Your task to perform on an android device: clear all cookies in the chrome app Image 0: 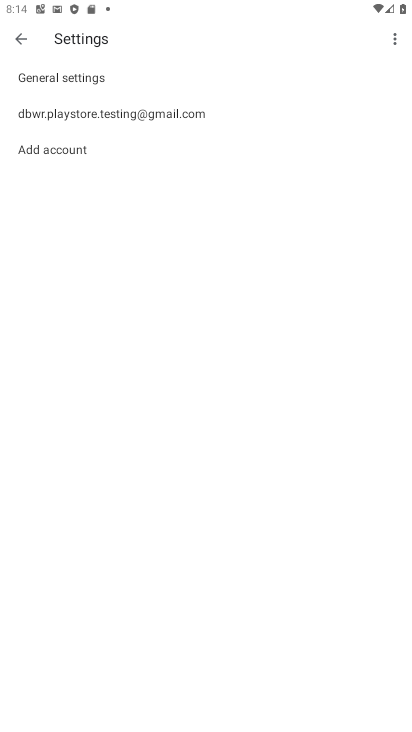
Step 0: press home button
Your task to perform on an android device: clear all cookies in the chrome app Image 1: 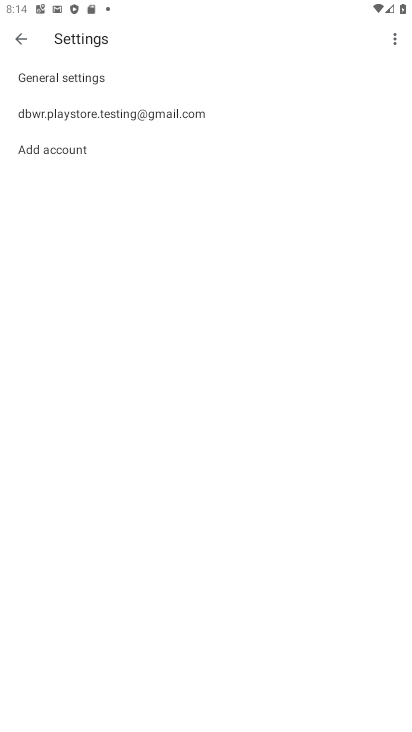
Step 1: press home button
Your task to perform on an android device: clear all cookies in the chrome app Image 2: 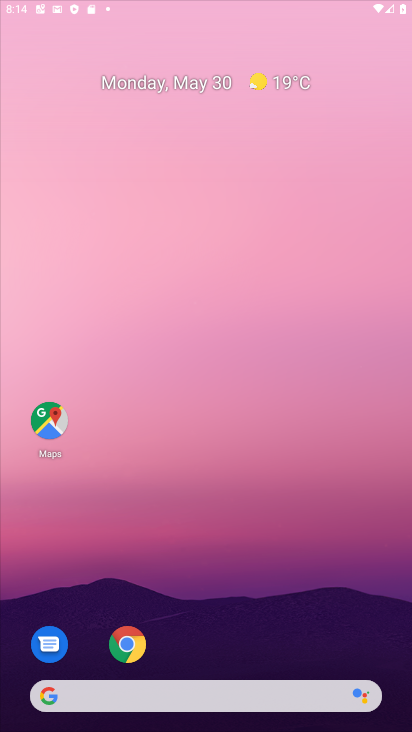
Step 2: press home button
Your task to perform on an android device: clear all cookies in the chrome app Image 3: 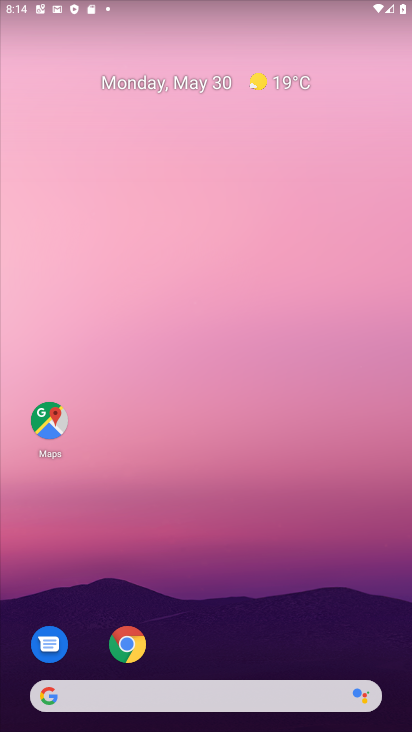
Step 3: drag from (169, 670) to (226, 133)
Your task to perform on an android device: clear all cookies in the chrome app Image 4: 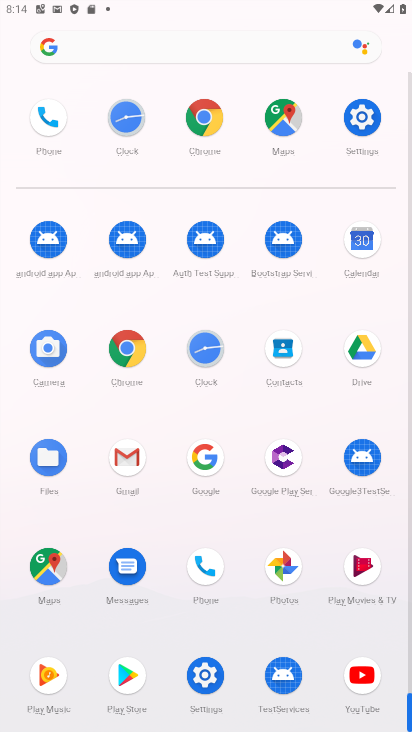
Step 4: click (118, 347)
Your task to perform on an android device: clear all cookies in the chrome app Image 5: 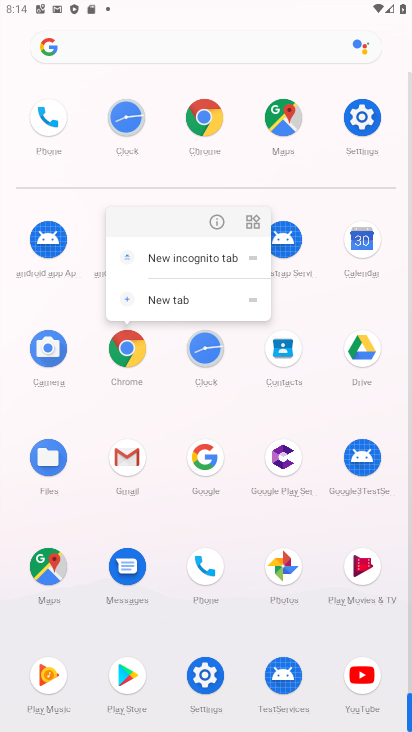
Step 5: click (212, 222)
Your task to perform on an android device: clear all cookies in the chrome app Image 6: 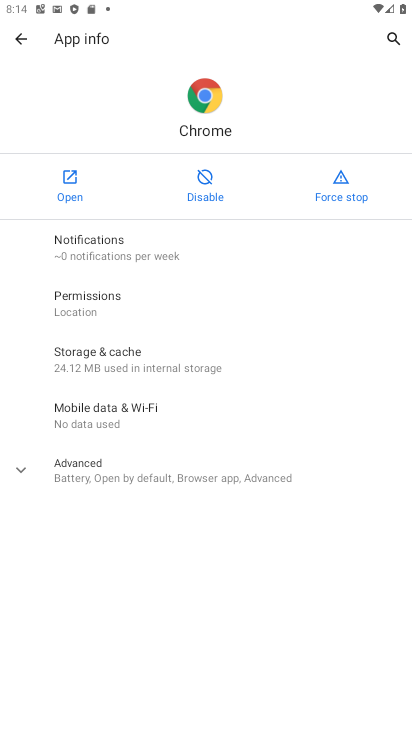
Step 6: click (63, 168)
Your task to perform on an android device: clear all cookies in the chrome app Image 7: 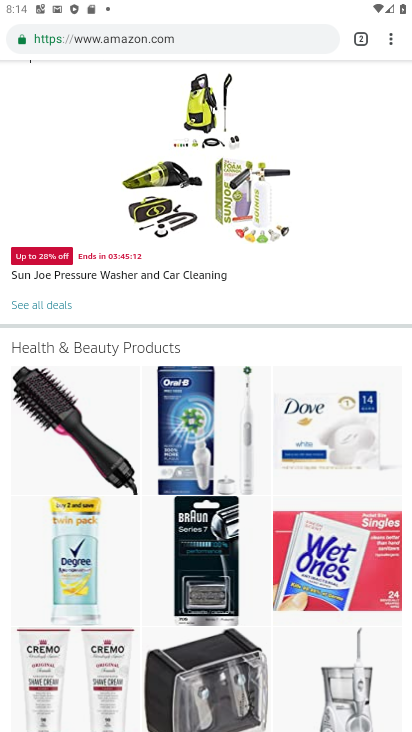
Step 7: drag from (392, 38) to (263, 467)
Your task to perform on an android device: clear all cookies in the chrome app Image 8: 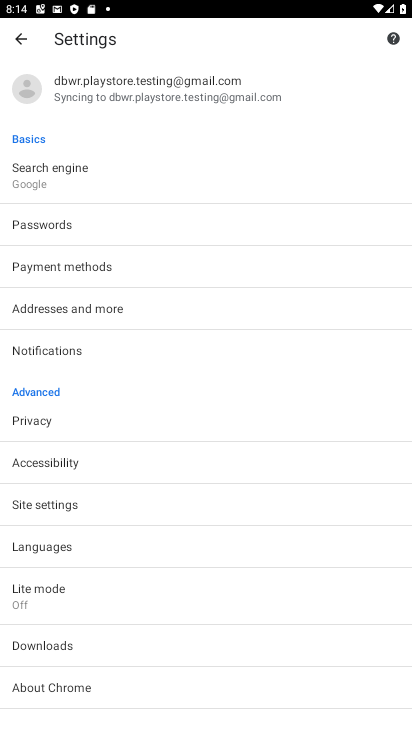
Step 8: click (20, 38)
Your task to perform on an android device: clear all cookies in the chrome app Image 9: 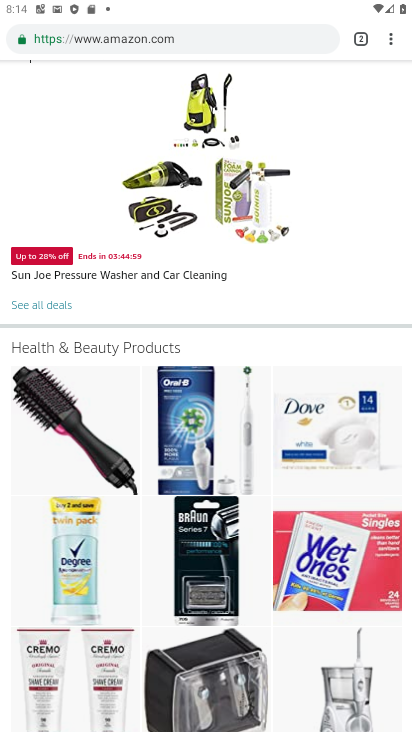
Step 9: drag from (381, 38) to (258, 220)
Your task to perform on an android device: clear all cookies in the chrome app Image 10: 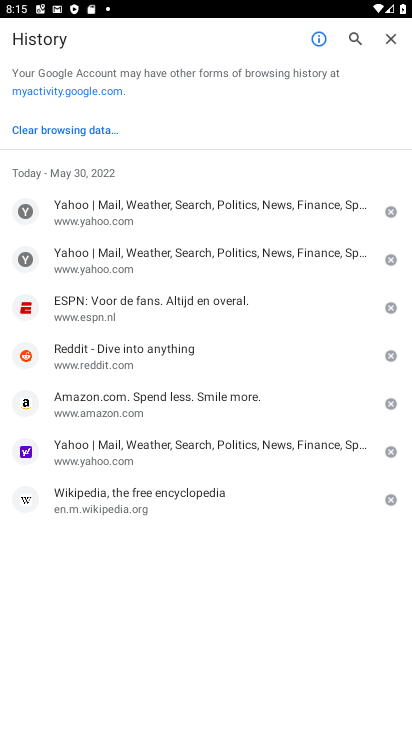
Step 10: click (49, 116)
Your task to perform on an android device: clear all cookies in the chrome app Image 11: 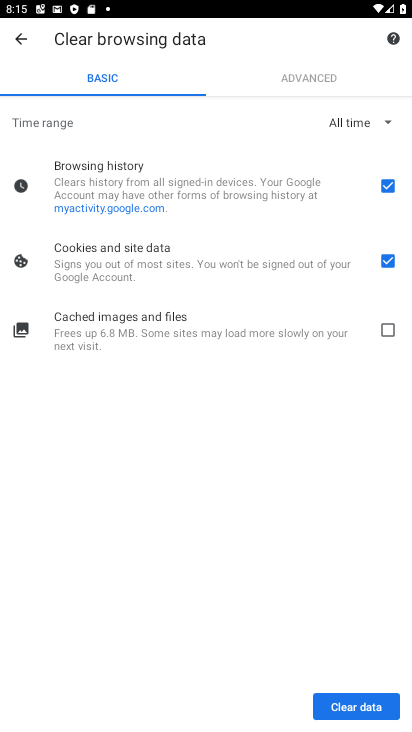
Step 11: click (398, 183)
Your task to perform on an android device: clear all cookies in the chrome app Image 12: 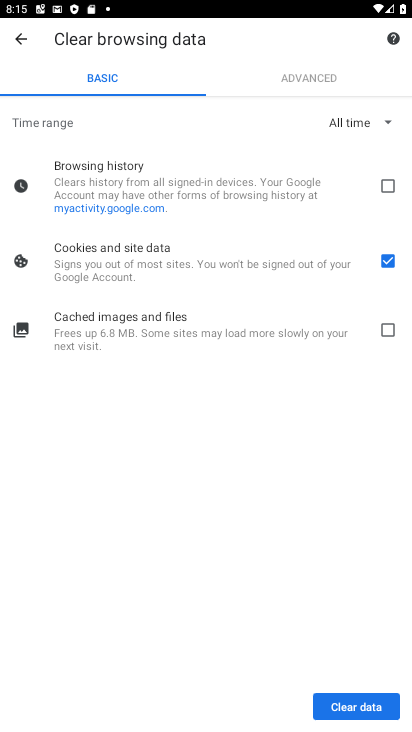
Step 12: click (348, 706)
Your task to perform on an android device: clear all cookies in the chrome app Image 13: 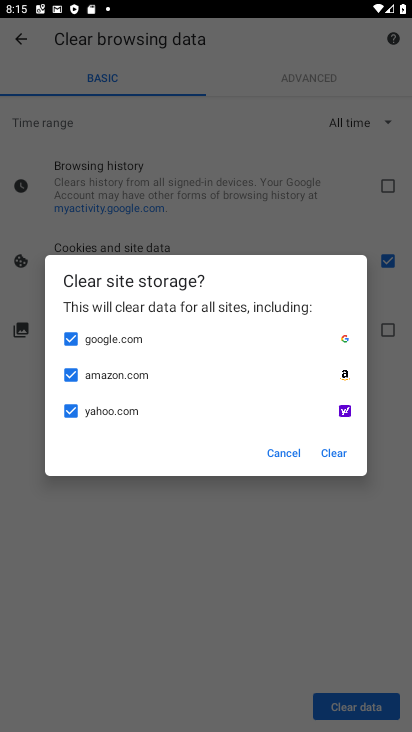
Step 13: click (339, 445)
Your task to perform on an android device: clear all cookies in the chrome app Image 14: 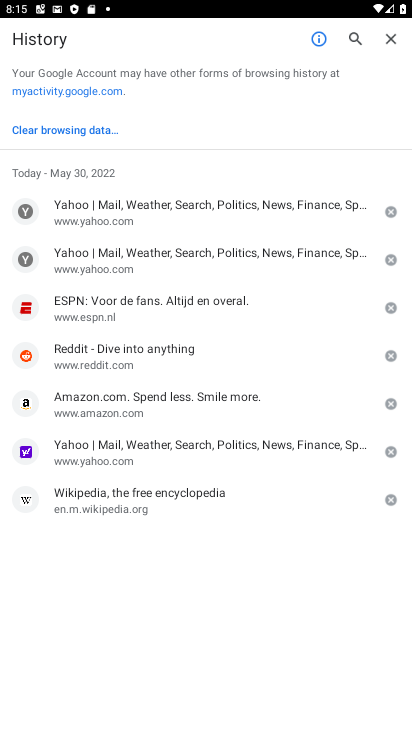
Step 14: task complete